Your task to perform on an android device: create a new album in the google photos Image 0: 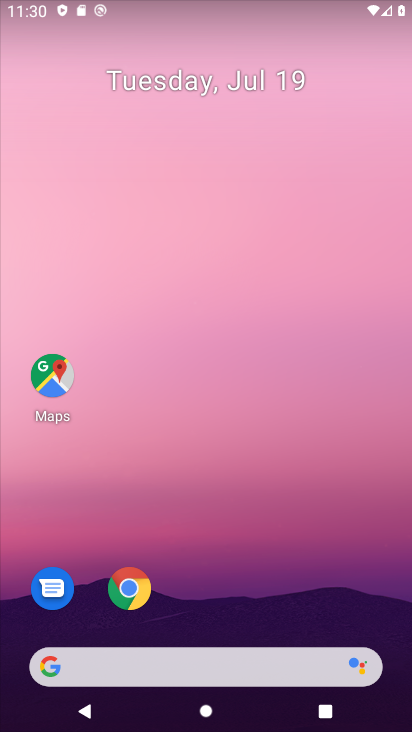
Step 0: drag from (396, 652) to (218, 57)
Your task to perform on an android device: create a new album in the google photos Image 1: 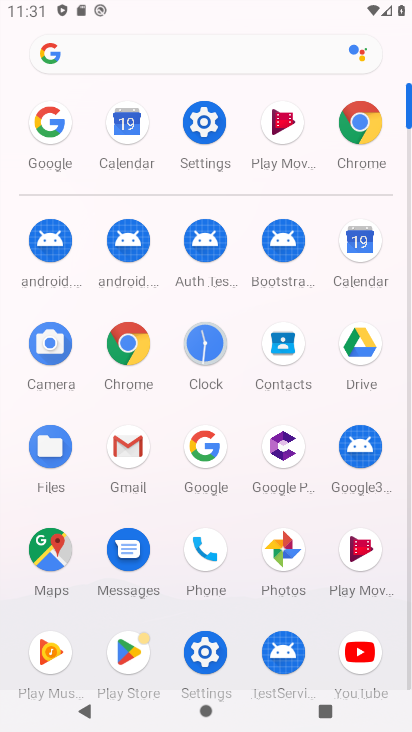
Step 1: click (296, 552)
Your task to perform on an android device: create a new album in the google photos Image 2: 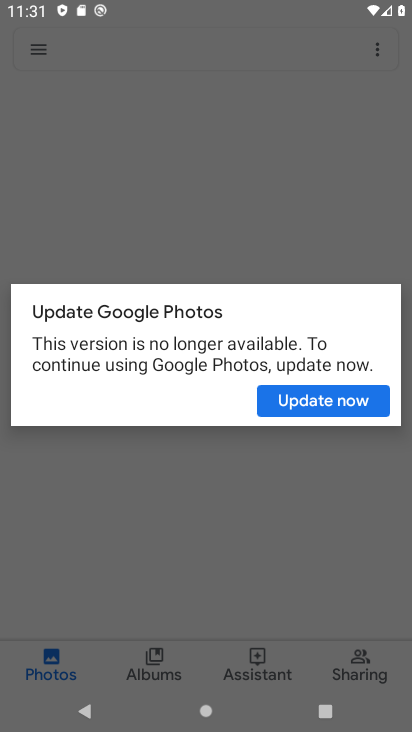
Step 2: click (329, 413)
Your task to perform on an android device: create a new album in the google photos Image 3: 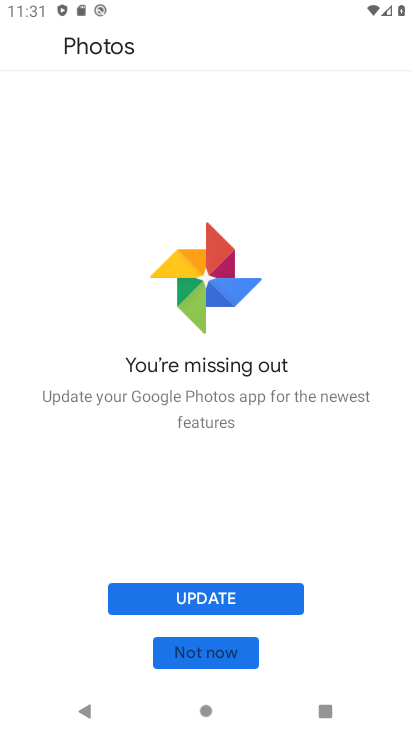
Step 3: click (224, 575)
Your task to perform on an android device: create a new album in the google photos Image 4: 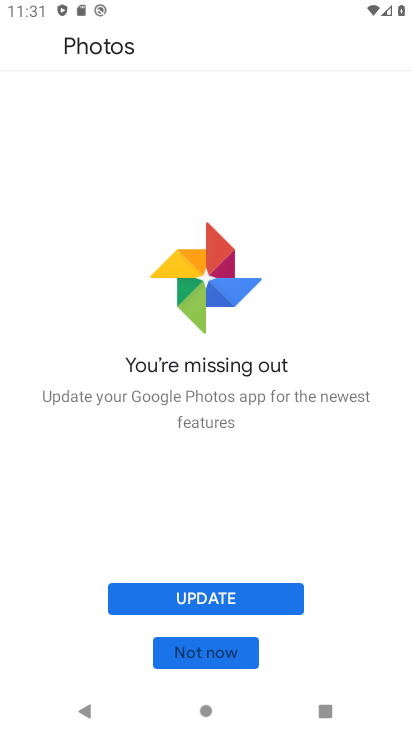
Step 4: click (209, 602)
Your task to perform on an android device: create a new album in the google photos Image 5: 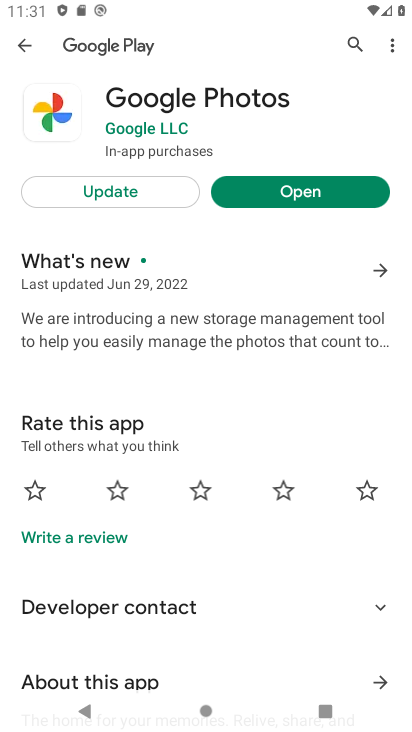
Step 5: click (85, 193)
Your task to perform on an android device: create a new album in the google photos Image 6: 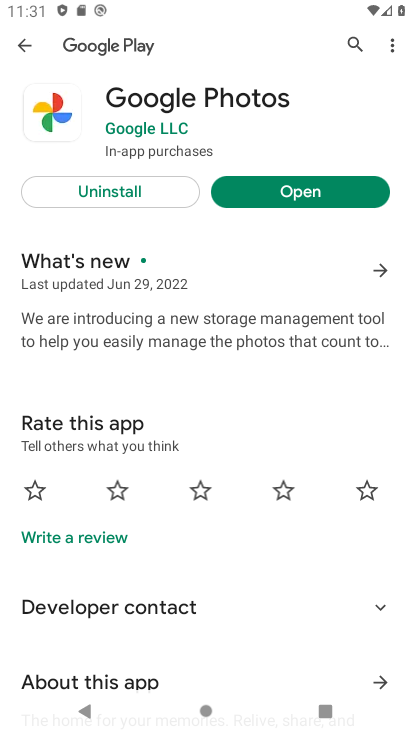
Step 6: click (285, 198)
Your task to perform on an android device: create a new album in the google photos Image 7: 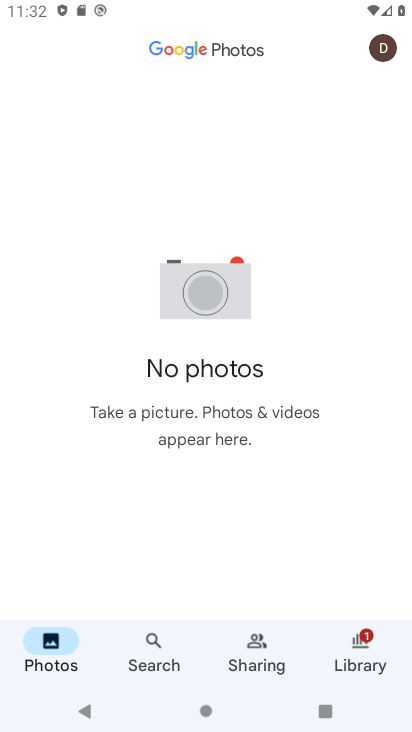
Step 7: task complete